Your task to perform on an android device: Open CNN.com Image 0: 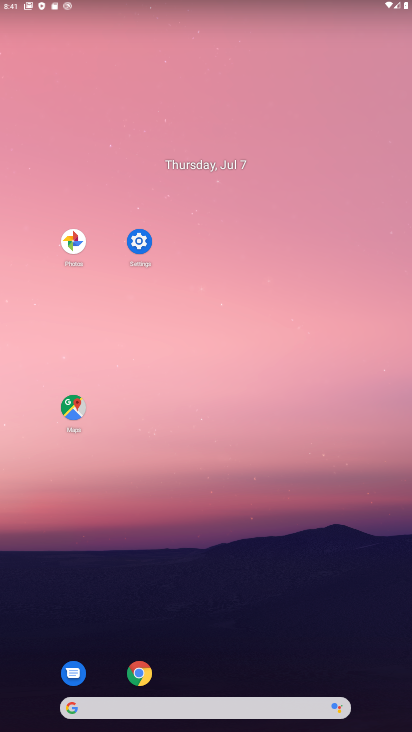
Step 0: click (144, 675)
Your task to perform on an android device: Open CNN.com Image 1: 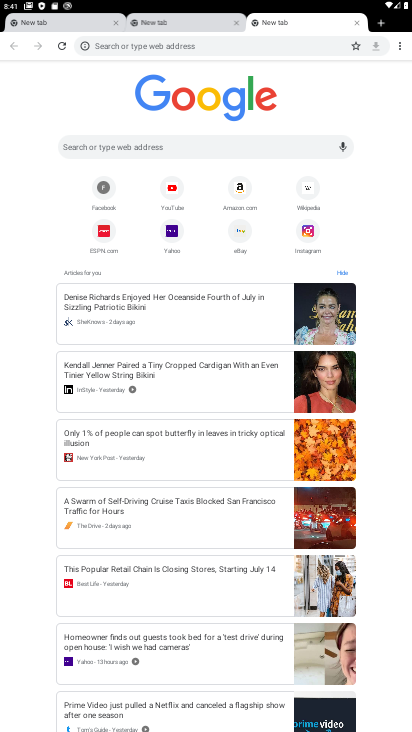
Step 1: click (117, 145)
Your task to perform on an android device: Open CNN.com Image 2: 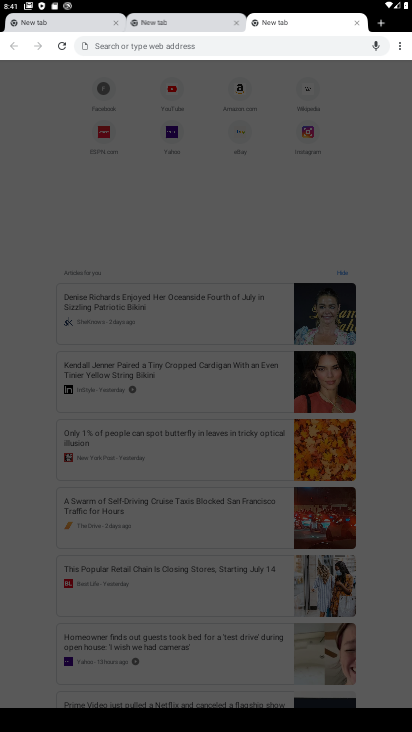
Step 2: type "cnn"
Your task to perform on an android device: Open CNN.com Image 3: 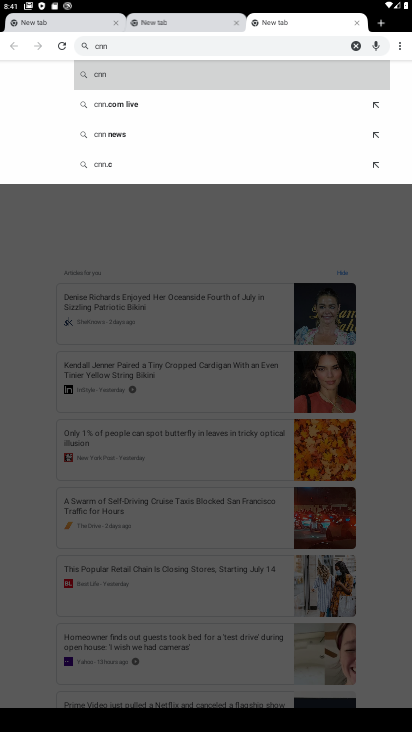
Step 3: click (120, 75)
Your task to perform on an android device: Open CNN.com Image 4: 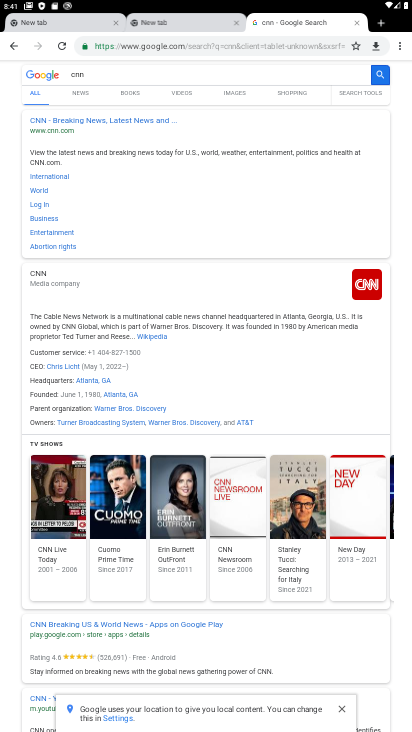
Step 4: click (56, 114)
Your task to perform on an android device: Open CNN.com Image 5: 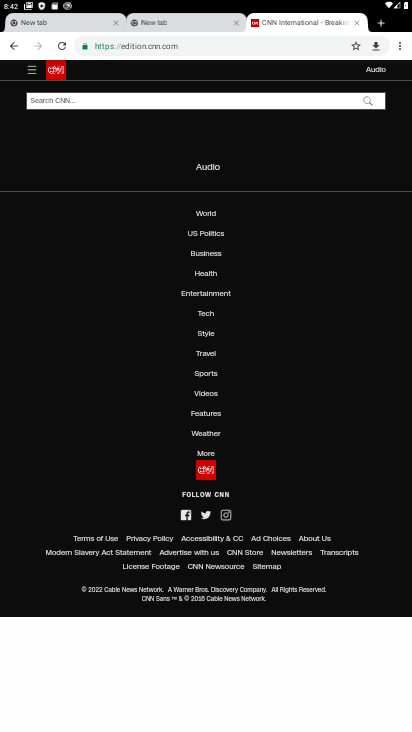
Step 5: task complete